Your task to perform on an android device: When is my next appointment? Image 0: 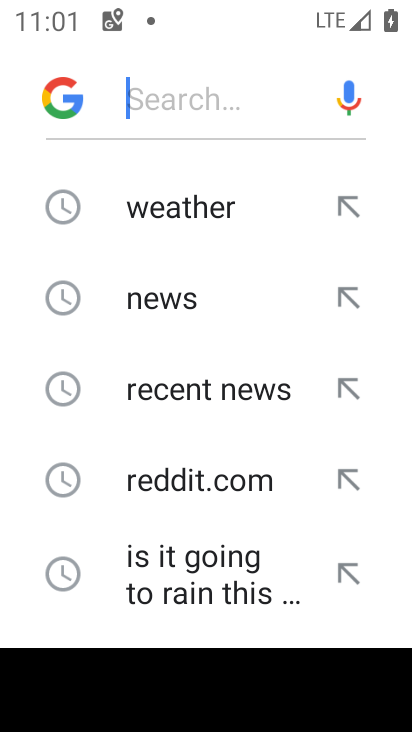
Step 0: press home button
Your task to perform on an android device: When is my next appointment? Image 1: 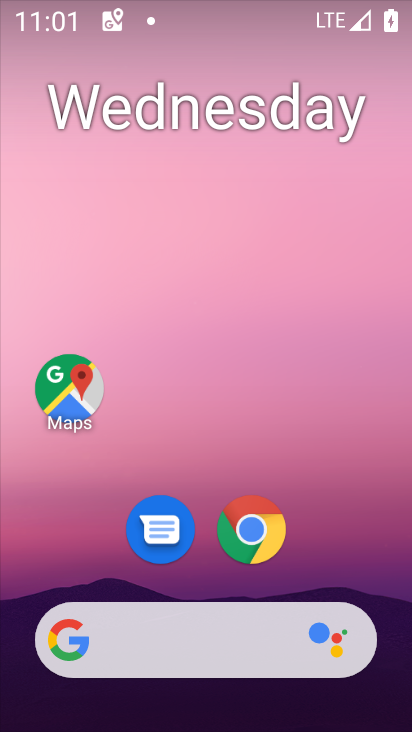
Step 1: drag from (395, 614) to (344, 181)
Your task to perform on an android device: When is my next appointment? Image 2: 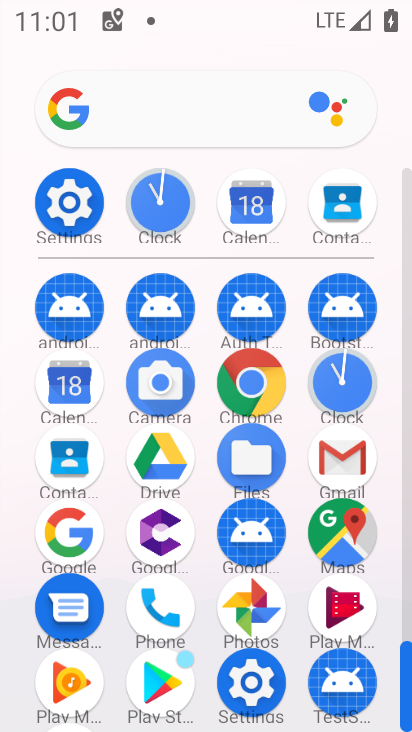
Step 2: click (408, 619)
Your task to perform on an android device: When is my next appointment? Image 3: 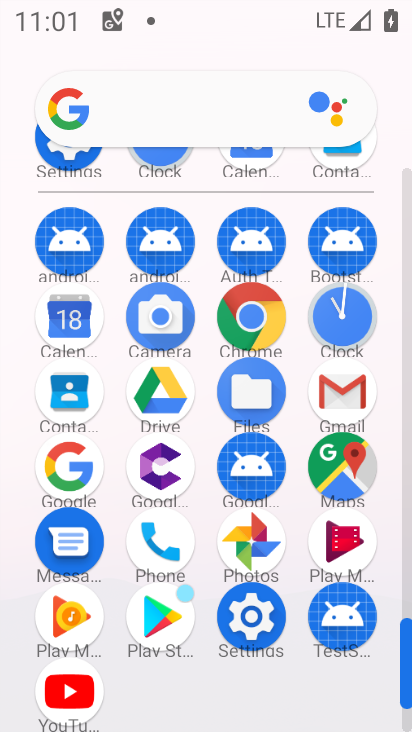
Step 3: click (64, 314)
Your task to perform on an android device: When is my next appointment? Image 4: 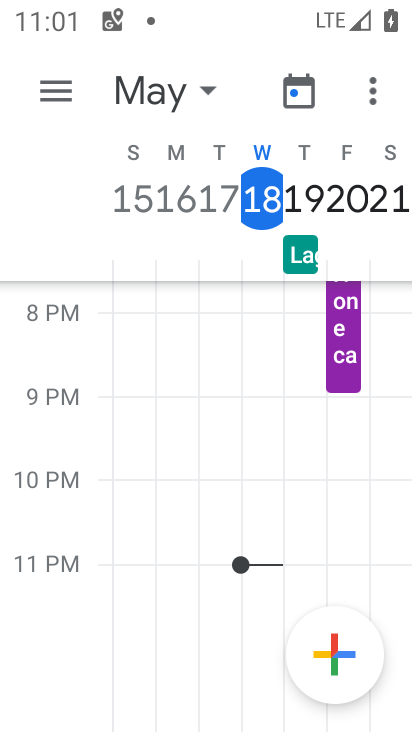
Step 4: click (47, 86)
Your task to perform on an android device: When is my next appointment? Image 5: 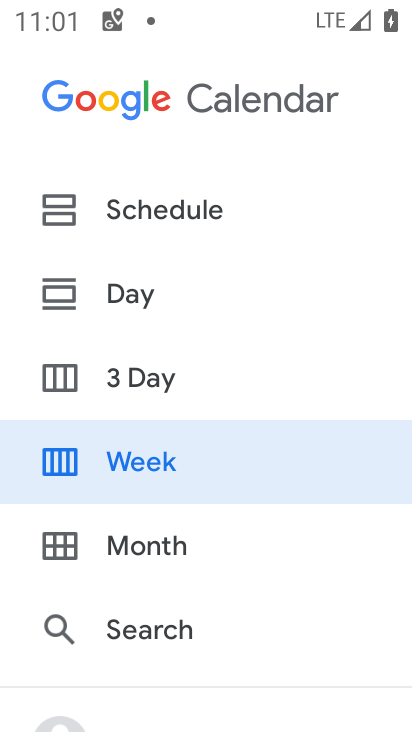
Step 5: click (153, 224)
Your task to perform on an android device: When is my next appointment? Image 6: 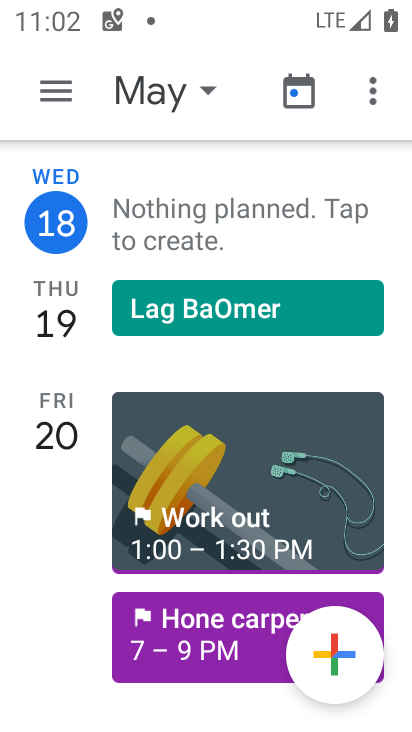
Step 6: task complete